Your task to perform on an android device: Check the settings for the Amazon Music app Image 0: 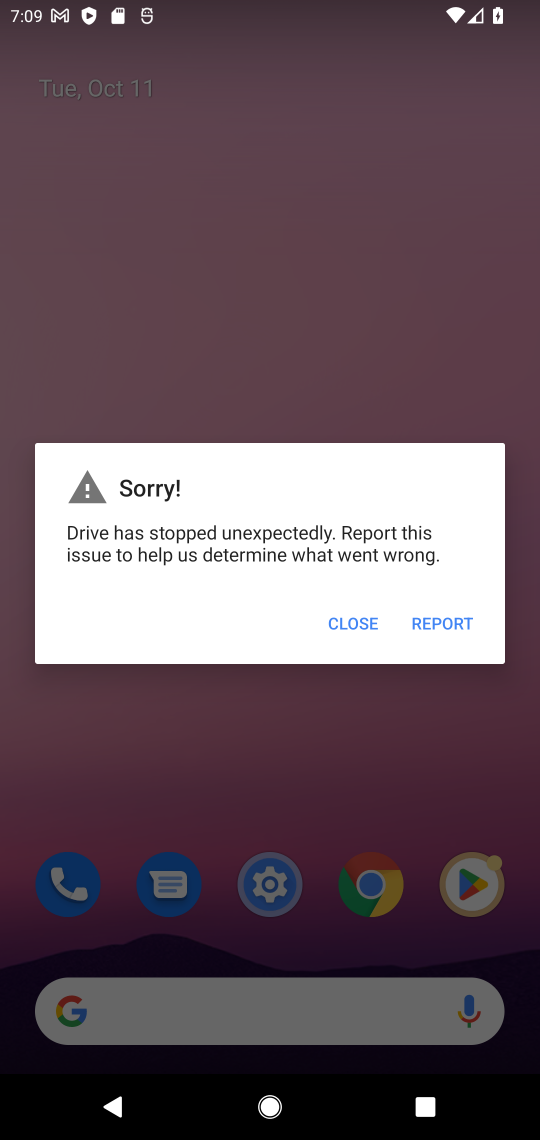
Step 0: press home button
Your task to perform on an android device: Check the settings for the Amazon Music app Image 1: 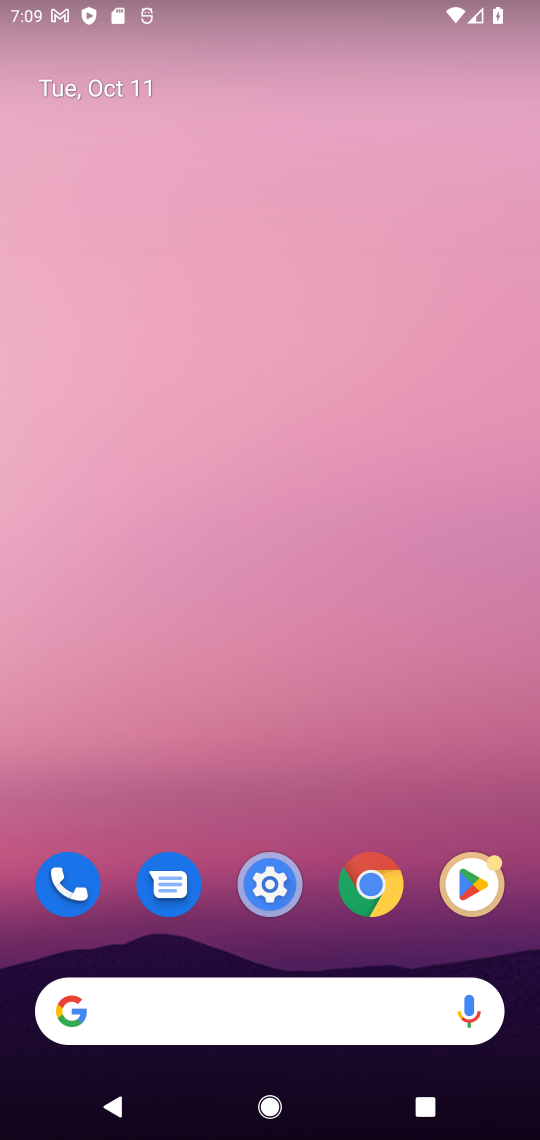
Step 1: task complete